Your task to perform on an android device: all mails in gmail Image 0: 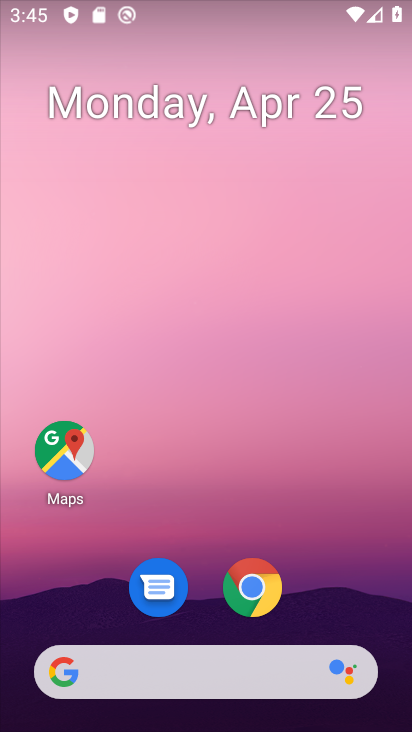
Step 0: drag from (231, 376) to (239, 174)
Your task to perform on an android device: all mails in gmail Image 1: 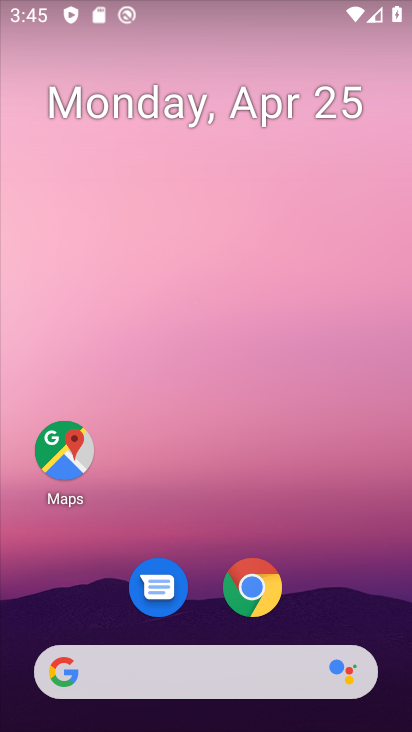
Step 1: drag from (196, 613) to (251, 112)
Your task to perform on an android device: all mails in gmail Image 2: 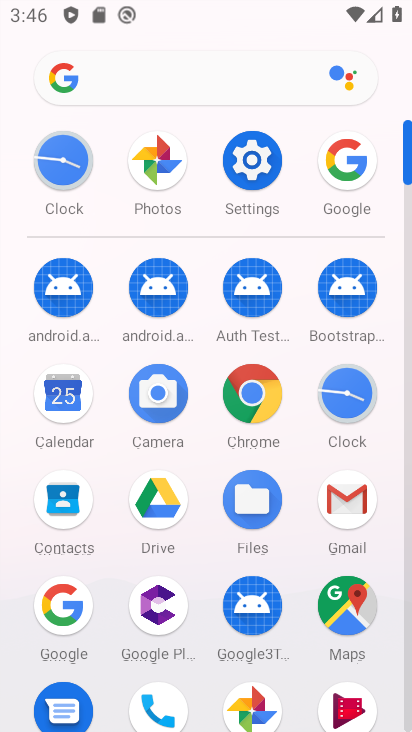
Step 2: click (339, 504)
Your task to perform on an android device: all mails in gmail Image 3: 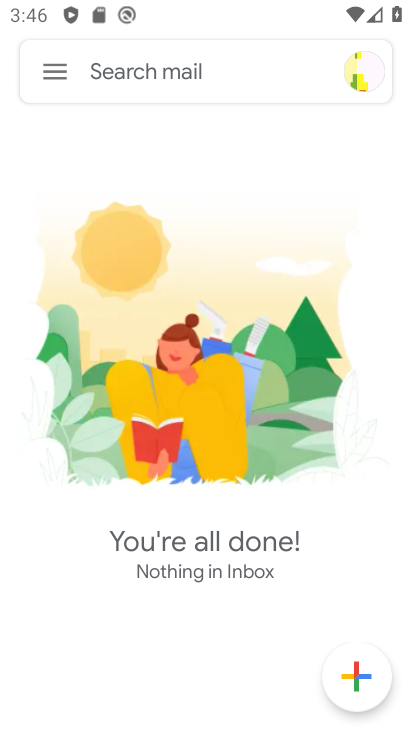
Step 3: click (53, 81)
Your task to perform on an android device: all mails in gmail Image 4: 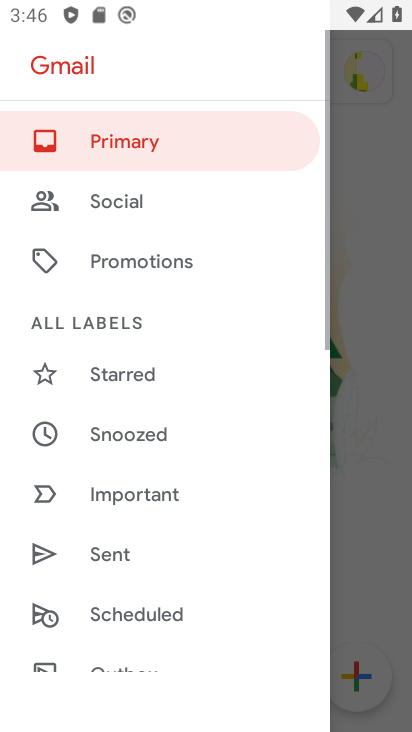
Step 4: drag from (209, 648) to (206, 133)
Your task to perform on an android device: all mails in gmail Image 5: 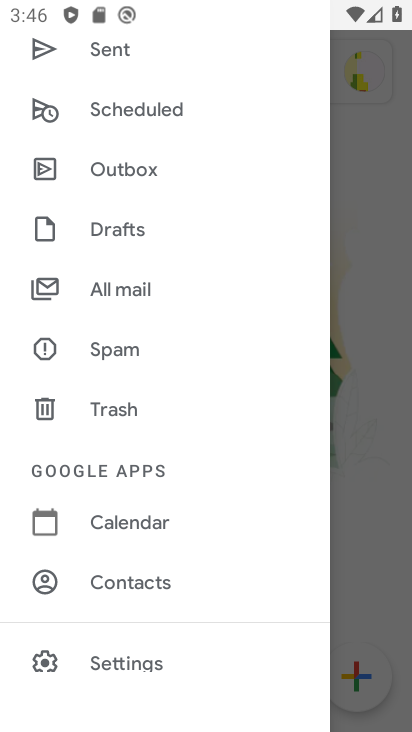
Step 5: drag from (249, 572) to (238, 529)
Your task to perform on an android device: all mails in gmail Image 6: 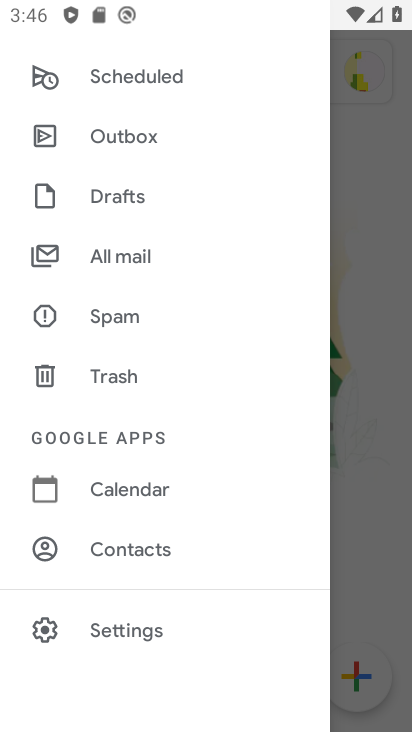
Step 6: click (77, 249)
Your task to perform on an android device: all mails in gmail Image 7: 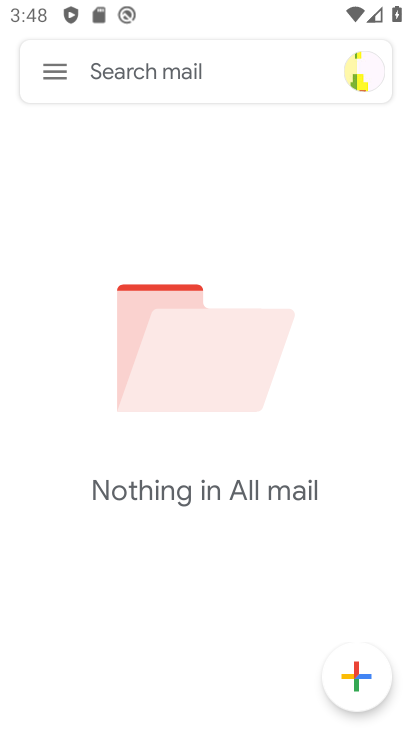
Step 7: task complete